Your task to perform on an android device: Go to location settings Image 0: 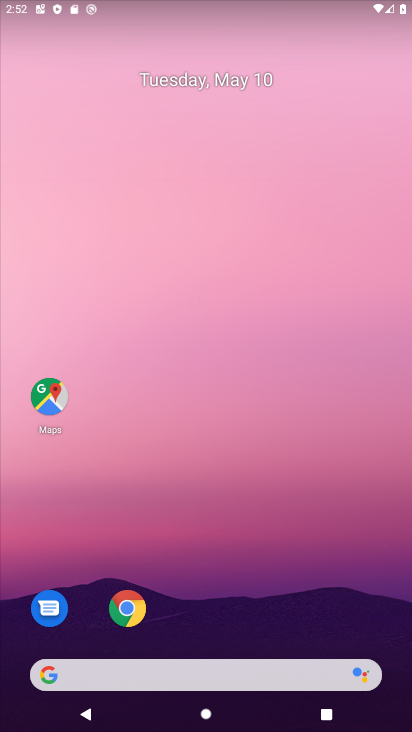
Step 0: drag from (179, 620) to (240, 0)
Your task to perform on an android device: Go to location settings Image 1: 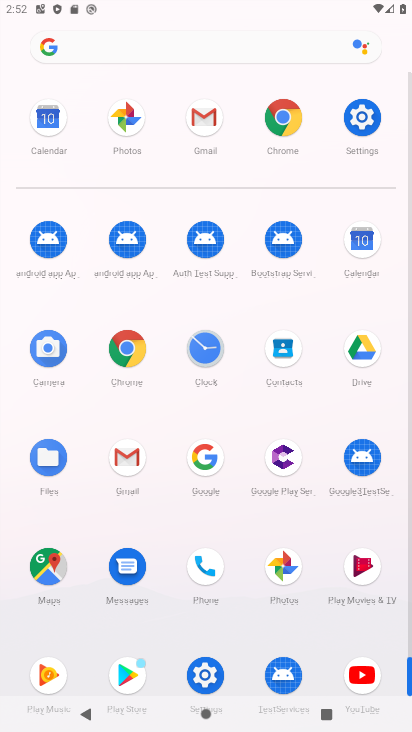
Step 1: click (202, 661)
Your task to perform on an android device: Go to location settings Image 2: 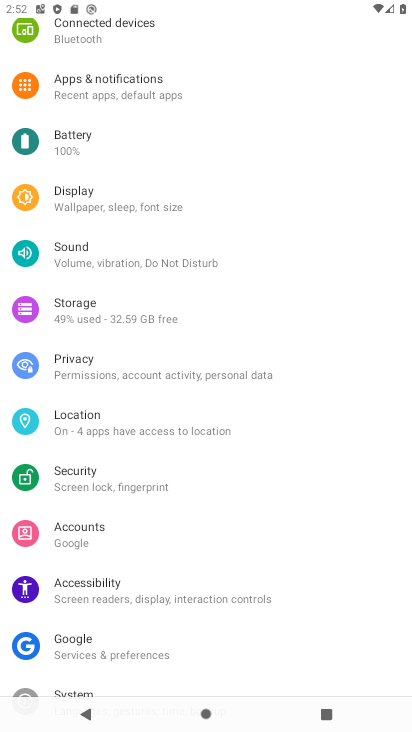
Step 2: click (145, 436)
Your task to perform on an android device: Go to location settings Image 3: 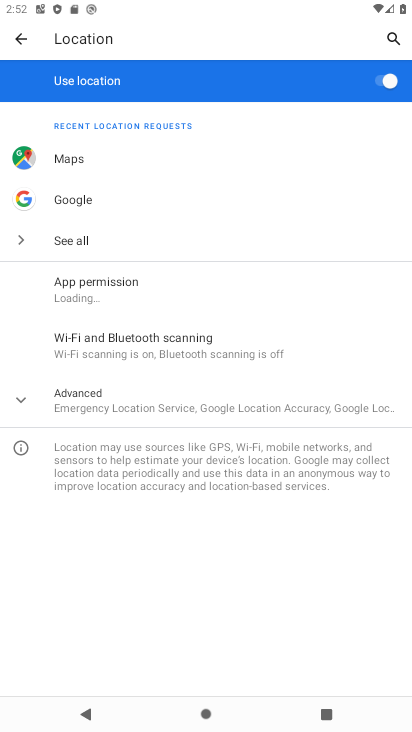
Step 3: task complete